Your task to perform on an android device: turn off improve location accuracy Image 0: 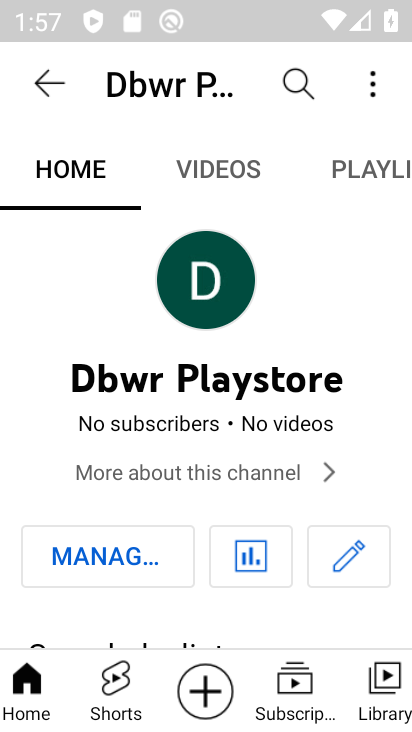
Step 0: press home button
Your task to perform on an android device: turn off improve location accuracy Image 1: 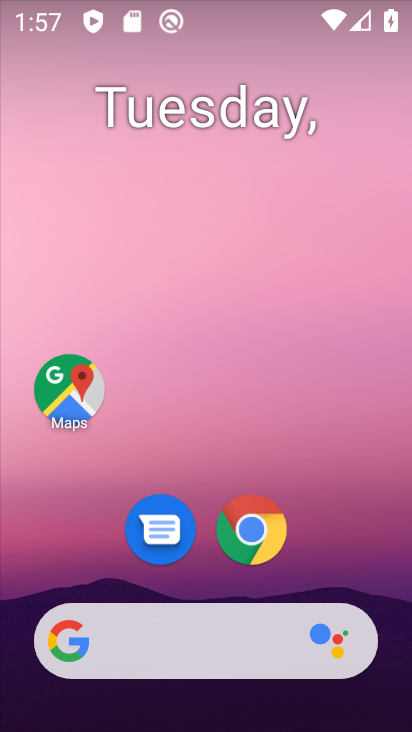
Step 1: drag from (394, 570) to (291, 53)
Your task to perform on an android device: turn off improve location accuracy Image 2: 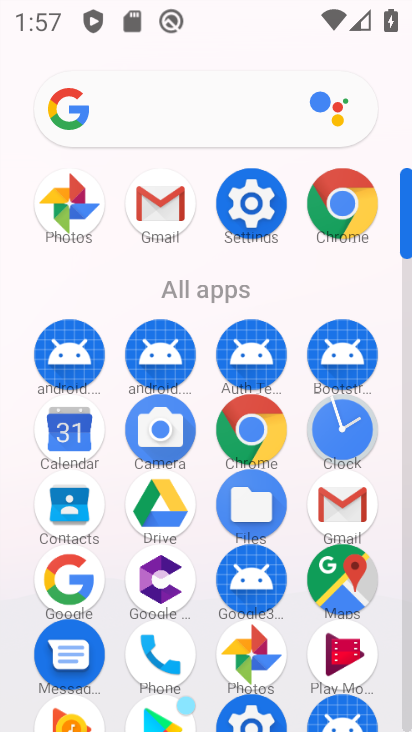
Step 2: click (250, 219)
Your task to perform on an android device: turn off improve location accuracy Image 3: 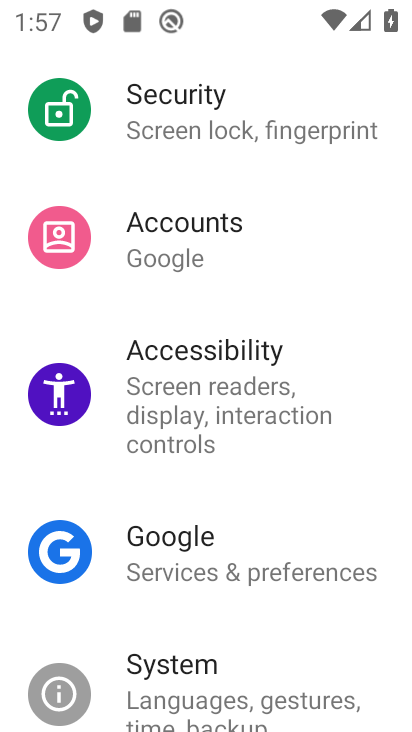
Step 3: drag from (248, 278) to (307, 724)
Your task to perform on an android device: turn off improve location accuracy Image 4: 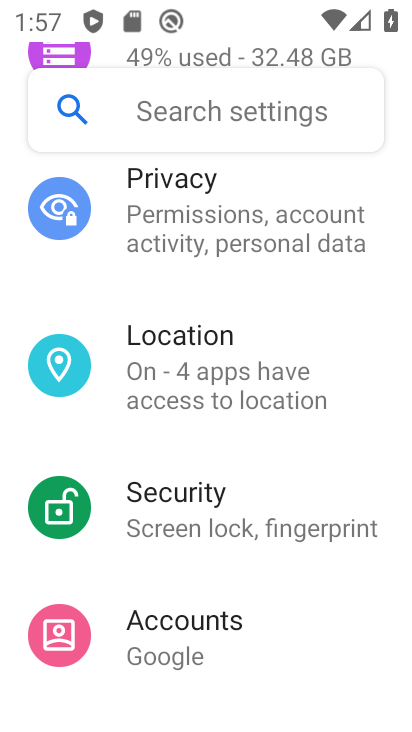
Step 4: click (273, 387)
Your task to perform on an android device: turn off improve location accuracy Image 5: 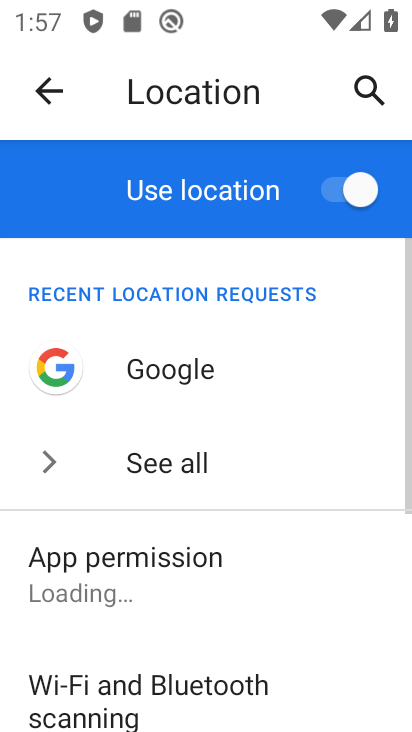
Step 5: drag from (283, 682) to (214, 19)
Your task to perform on an android device: turn off improve location accuracy Image 6: 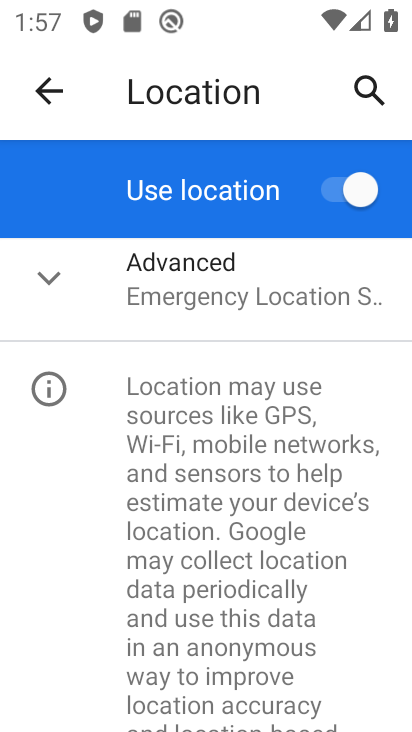
Step 6: click (263, 316)
Your task to perform on an android device: turn off improve location accuracy Image 7: 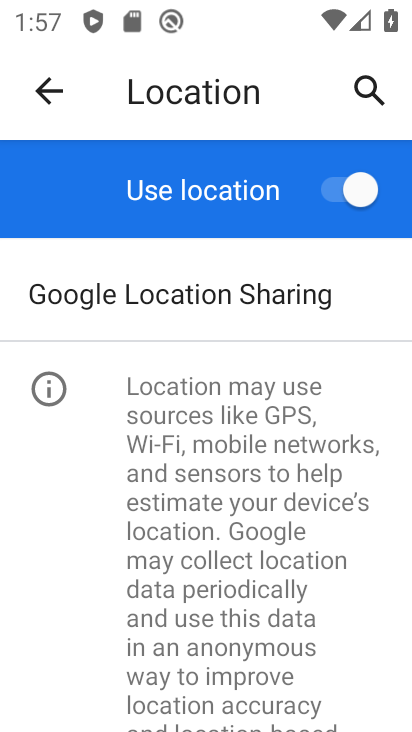
Step 7: drag from (248, 295) to (227, 512)
Your task to perform on an android device: turn off improve location accuracy Image 8: 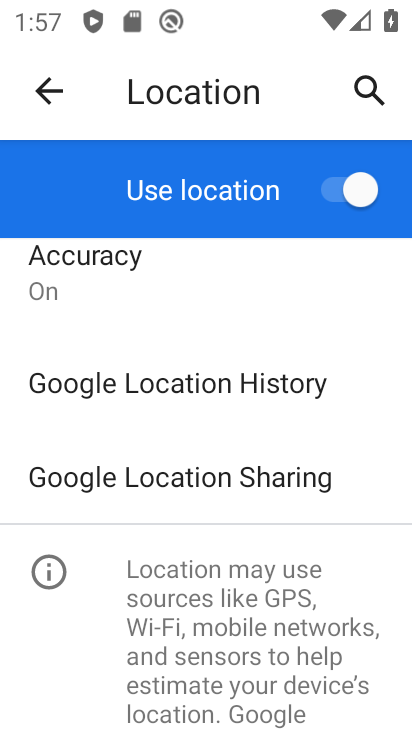
Step 8: click (136, 285)
Your task to perform on an android device: turn off improve location accuracy Image 9: 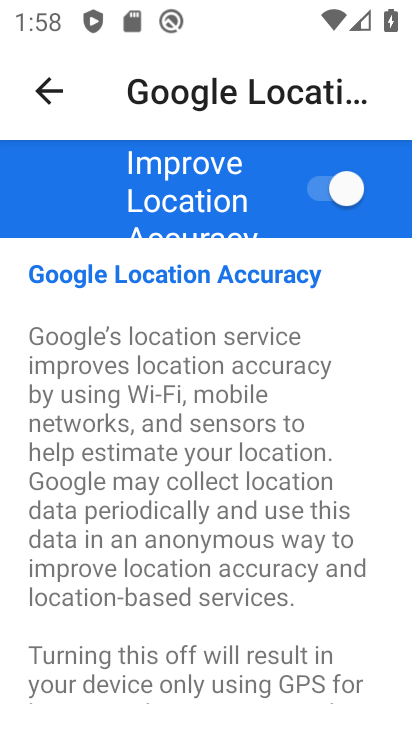
Step 9: click (308, 216)
Your task to perform on an android device: turn off improve location accuracy Image 10: 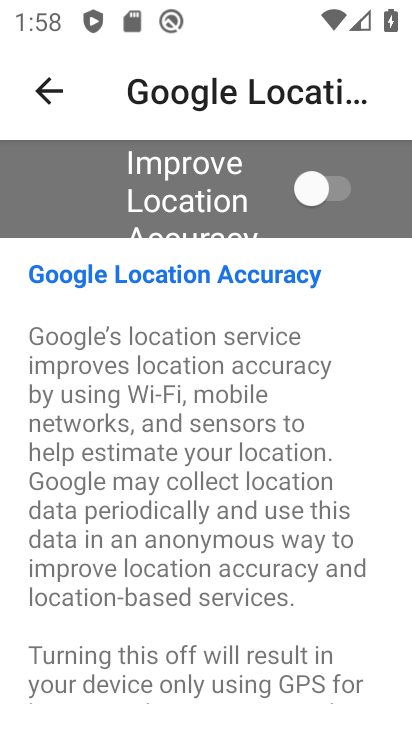
Step 10: task complete